Your task to perform on an android device: add a label to a message in the gmail app Image 0: 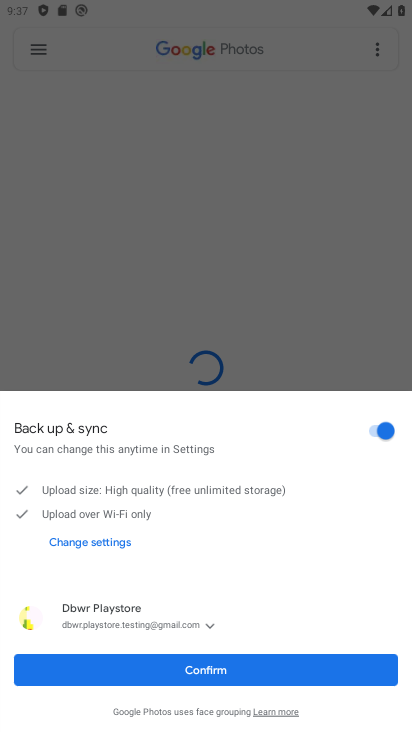
Step 0: press home button
Your task to perform on an android device: add a label to a message in the gmail app Image 1: 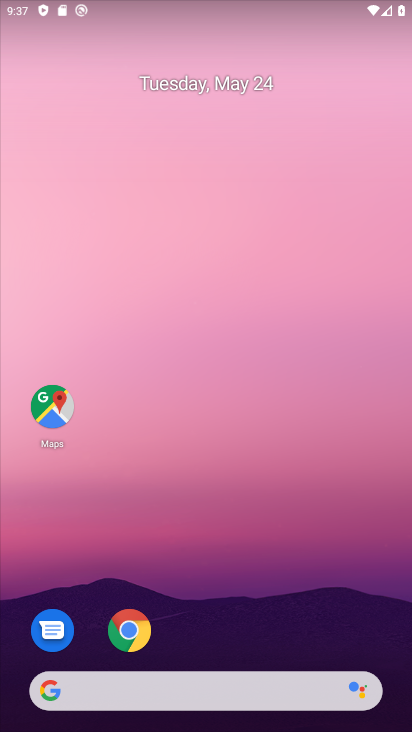
Step 1: drag from (198, 642) to (256, 127)
Your task to perform on an android device: add a label to a message in the gmail app Image 2: 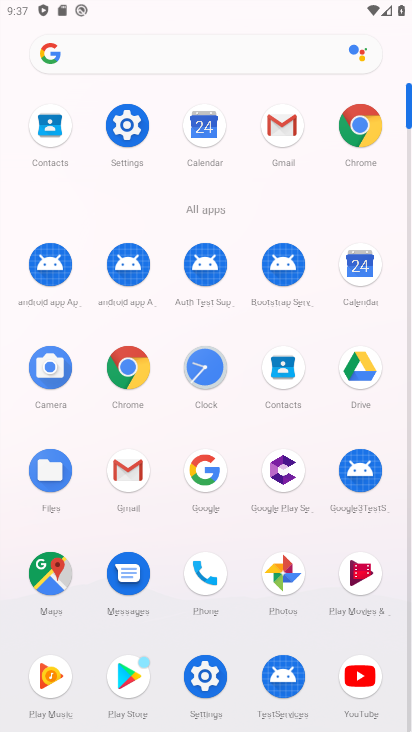
Step 2: click (277, 125)
Your task to perform on an android device: add a label to a message in the gmail app Image 3: 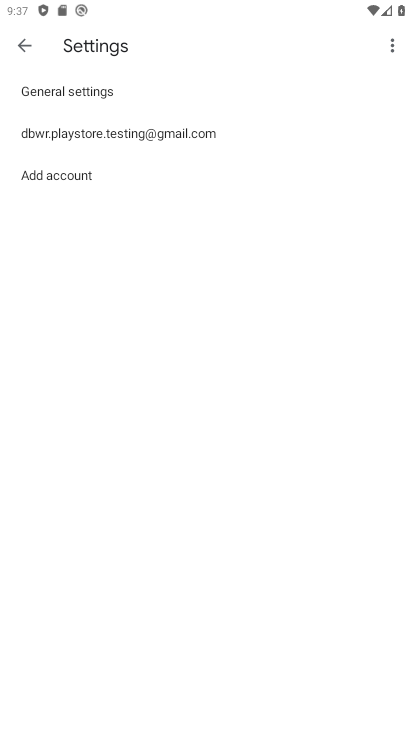
Step 3: click (23, 41)
Your task to perform on an android device: add a label to a message in the gmail app Image 4: 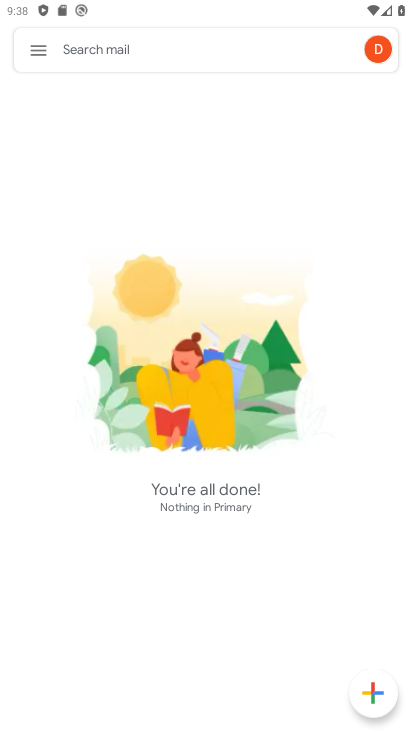
Step 4: task complete